Your task to perform on an android device: clear all cookies in the chrome app Image 0: 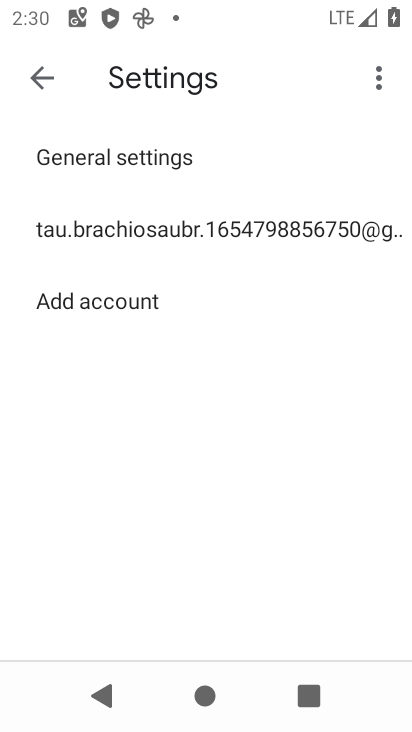
Step 0: press home button
Your task to perform on an android device: clear all cookies in the chrome app Image 1: 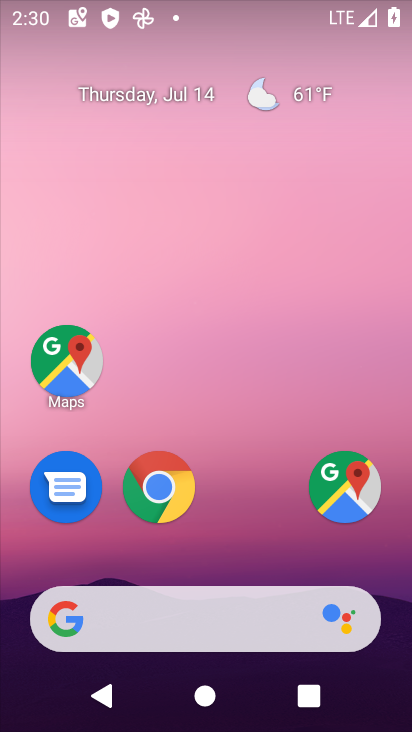
Step 1: drag from (256, 537) to (273, 165)
Your task to perform on an android device: clear all cookies in the chrome app Image 2: 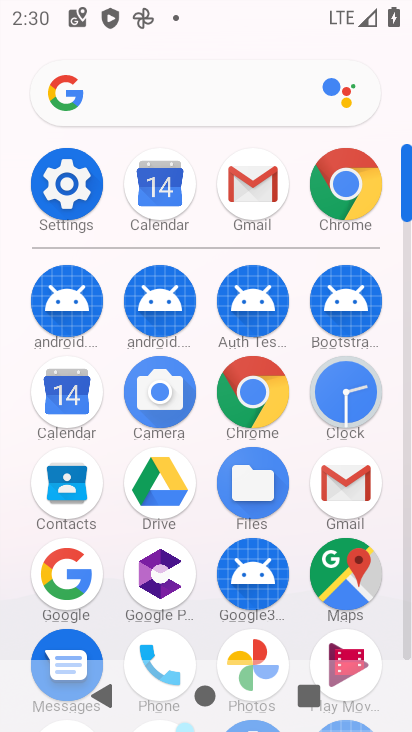
Step 2: click (266, 406)
Your task to perform on an android device: clear all cookies in the chrome app Image 3: 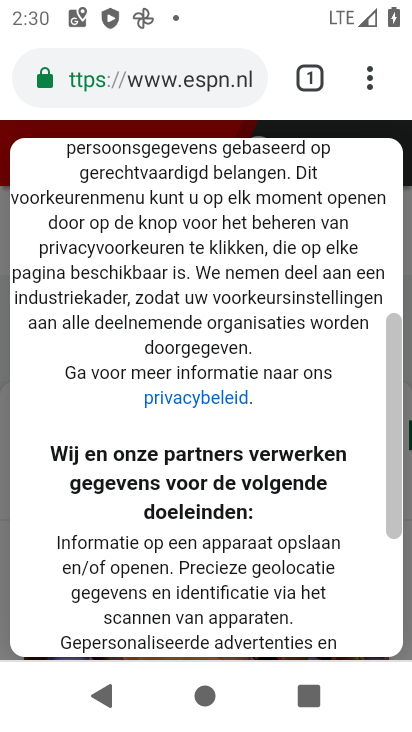
Step 3: click (370, 75)
Your task to perform on an android device: clear all cookies in the chrome app Image 4: 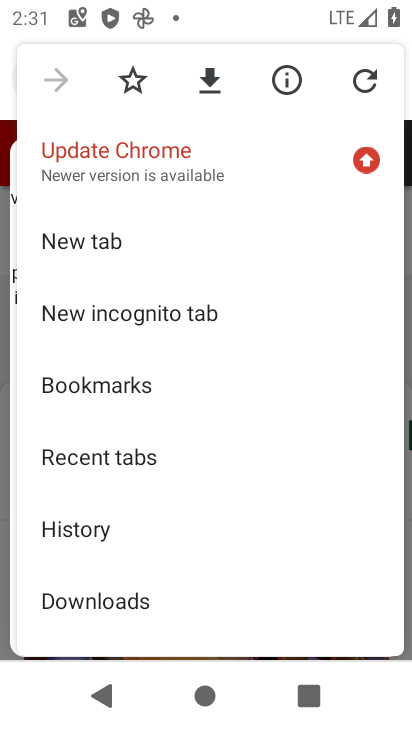
Step 4: drag from (297, 525) to (299, 396)
Your task to perform on an android device: clear all cookies in the chrome app Image 5: 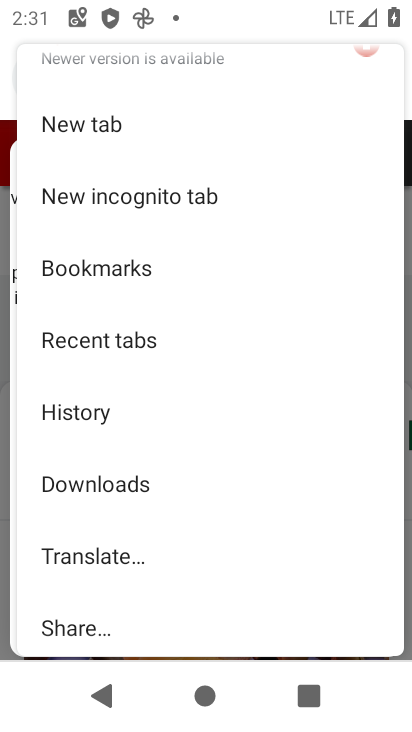
Step 5: drag from (297, 561) to (298, 391)
Your task to perform on an android device: clear all cookies in the chrome app Image 6: 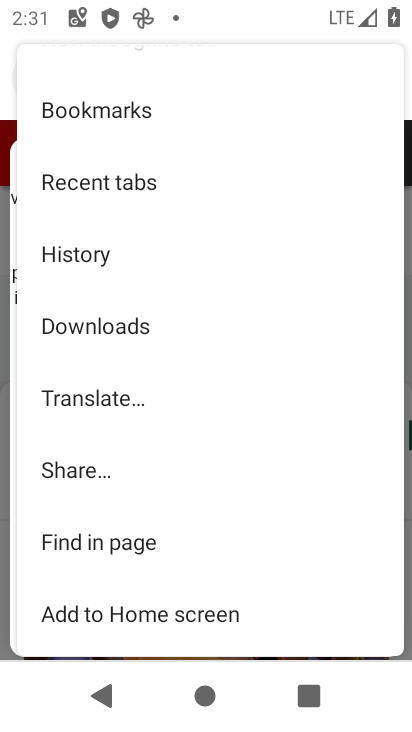
Step 6: drag from (298, 553) to (307, 285)
Your task to perform on an android device: clear all cookies in the chrome app Image 7: 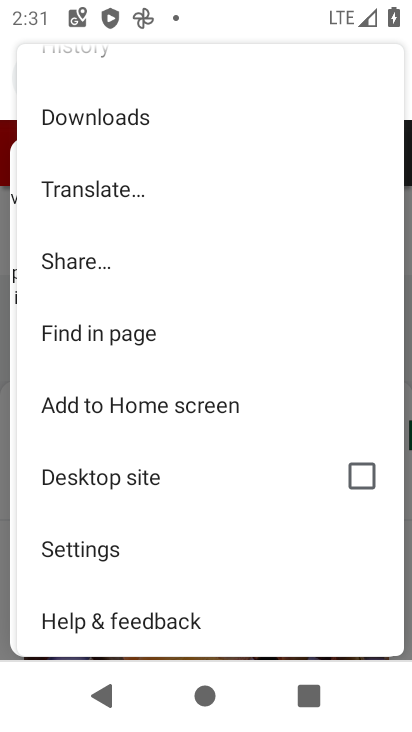
Step 7: drag from (278, 466) to (292, 238)
Your task to perform on an android device: clear all cookies in the chrome app Image 8: 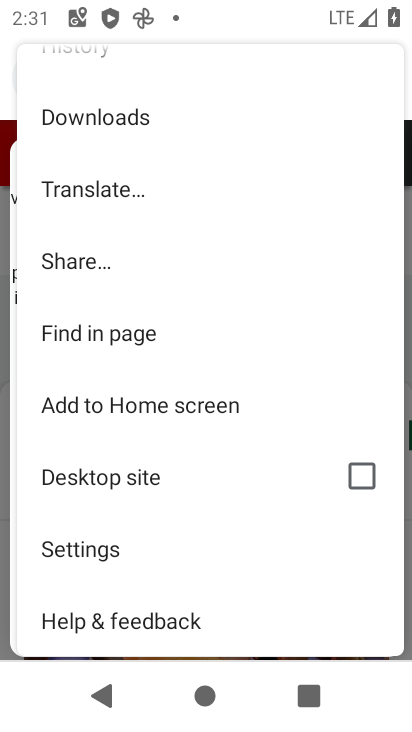
Step 8: drag from (299, 224) to (305, 344)
Your task to perform on an android device: clear all cookies in the chrome app Image 9: 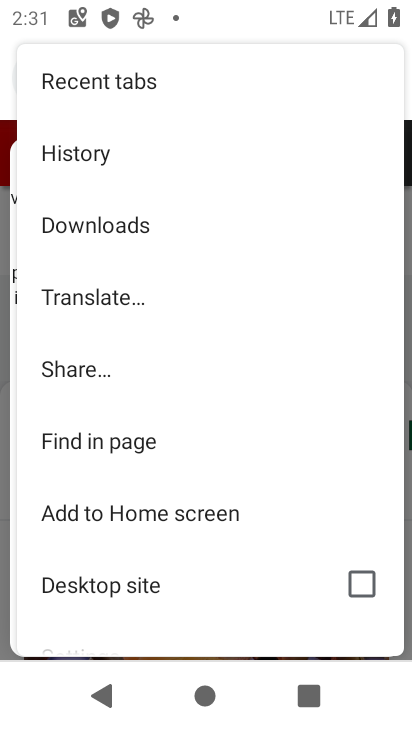
Step 9: drag from (287, 575) to (275, 424)
Your task to perform on an android device: clear all cookies in the chrome app Image 10: 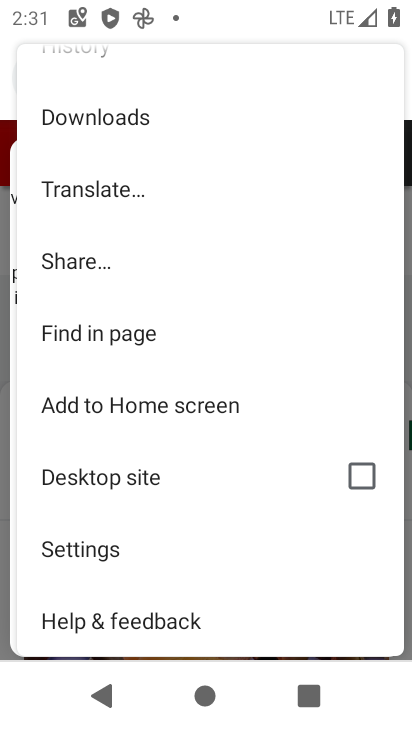
Step 10: click (132, 550)
Your task to perform on an android device: clear all cookies in the chrome app Image 11: 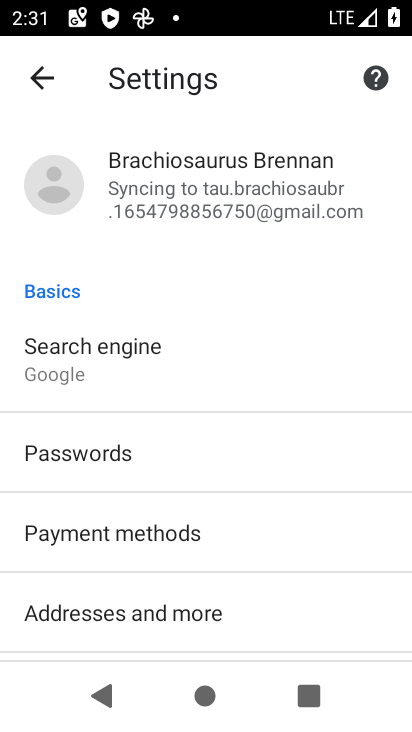
Step 11: drag from (292, 575) to (310, 363)
Your task to perform on an android device: clear all cookies in the chrome app Image 12: 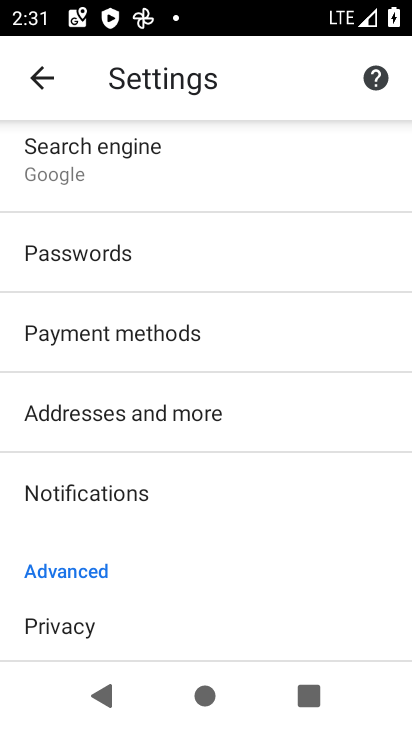
Step 12: drag from (281, 571) to (298, 342)
Your task to perform on an android device: clear all cookies in the chrome app Image 13: 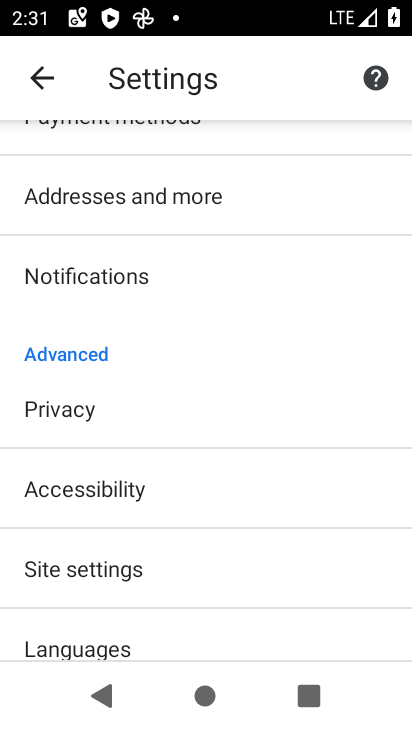
Step 13: drag from (299, 536) to (299, 417)
Your task to perform on an android device: clear all cookies in the chrome app Image 14: 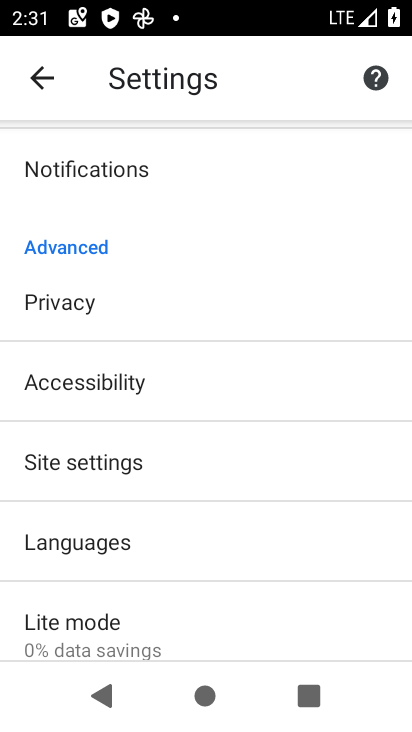
Step 14: click (255, 472)
Your task to perform on an android device: clear all cookies in the chrome app Image 15: 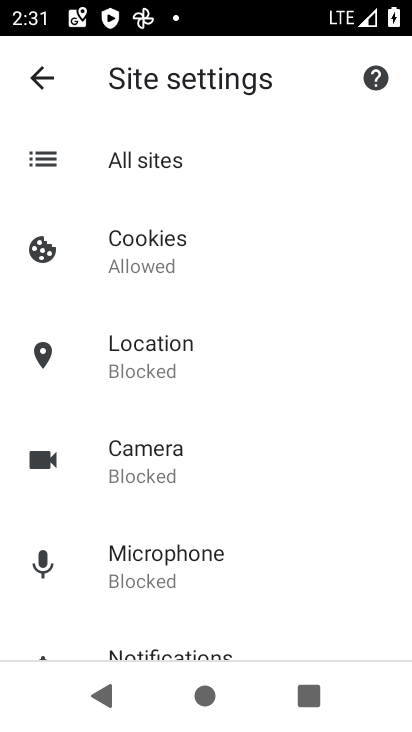
Step 15: drag from (296, 520) to (296, 419)
Your task to perform on an android device: clear all cookies in the chrome app Image 16: 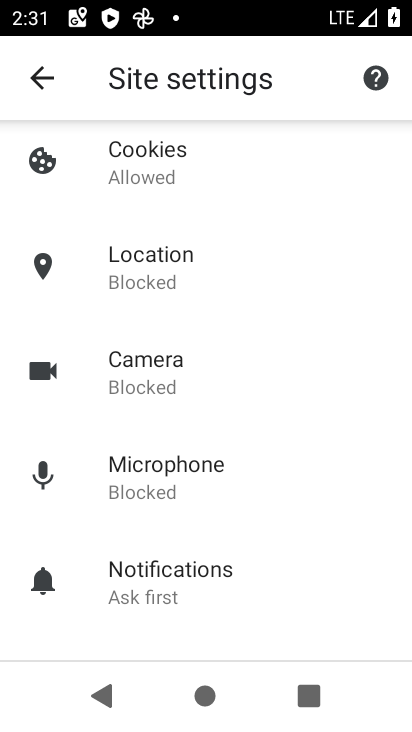
Step 16: drag from (274, 231) to (274, 333)
Your task to perform on an android device: clear all cookies in the chrome app Image 17: 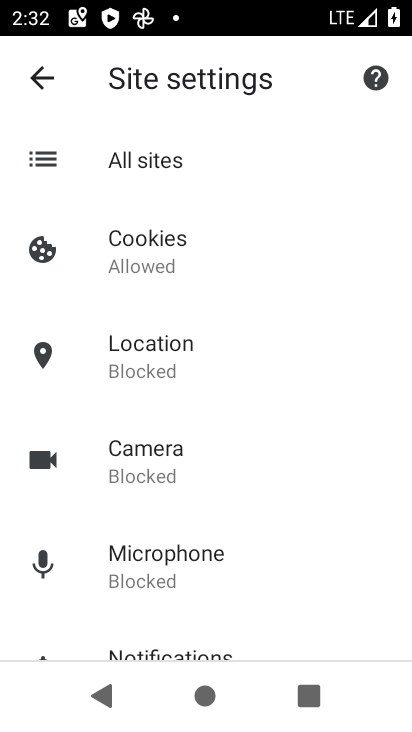
Step 17: click (177, 283)
Your task to perform on an android device: clear all cookies in the chrome app Image 18: 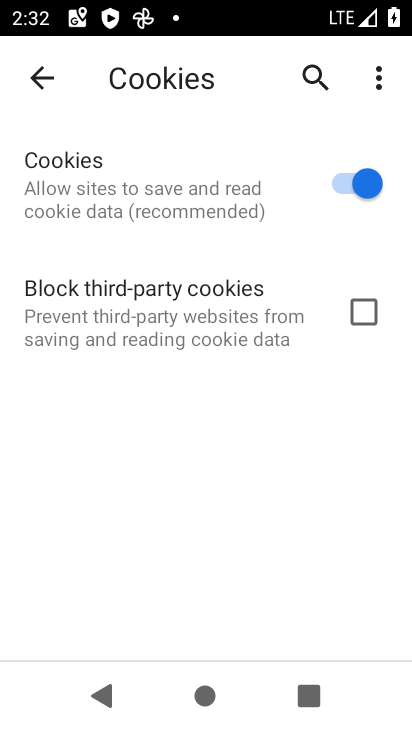
Step 18: click (364, 187)
Your task to perform on an android device: clear all cookies in the chrome app Image 19: 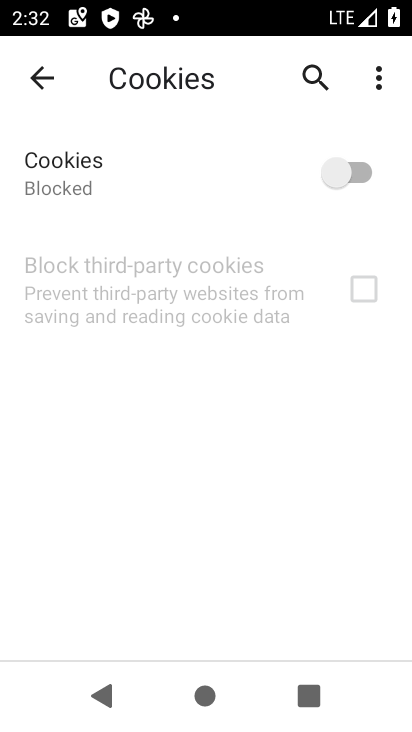
Step 19: task complete